Your task to perform on an android device: Open eBay Image 0: 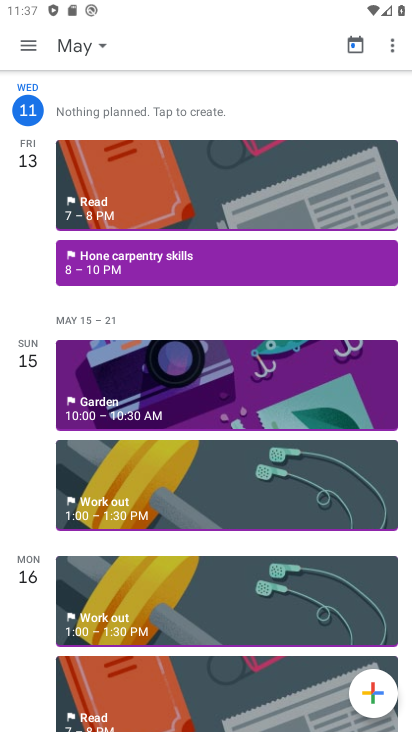
Step 0: press back button
Your task to perform on an android device: Open eBay Image 1: 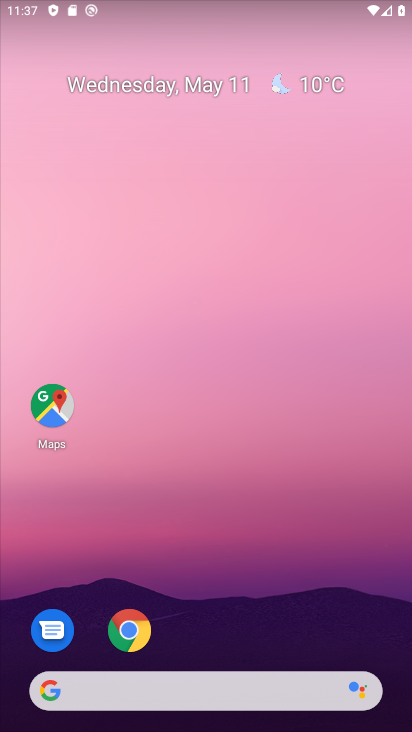
Step 1: click (117, 626)
Your task to perform on an android device: Open eBay Image 2: 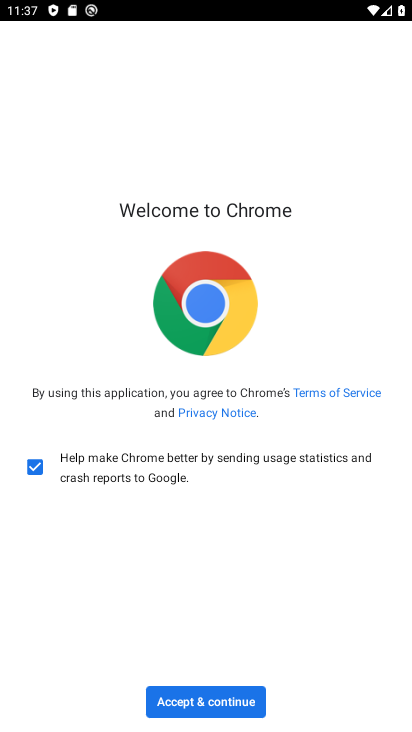
Step 2: click (215, 694)
Your task to perform on an android device: Open eBay Image 3: 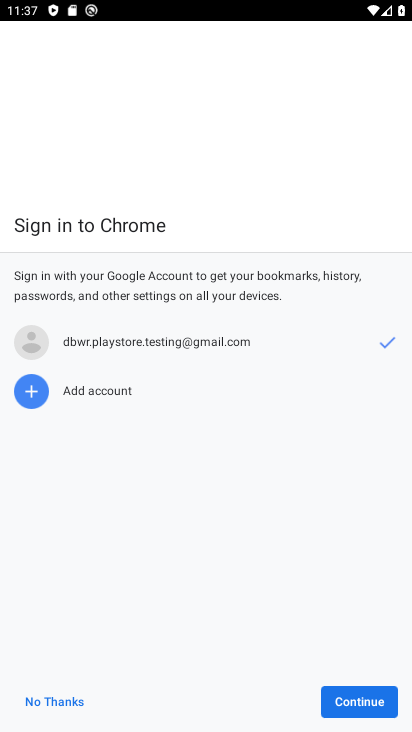
Step 3: click (375, 701)
Your task to perform on an android device: Open eBay Image 4: 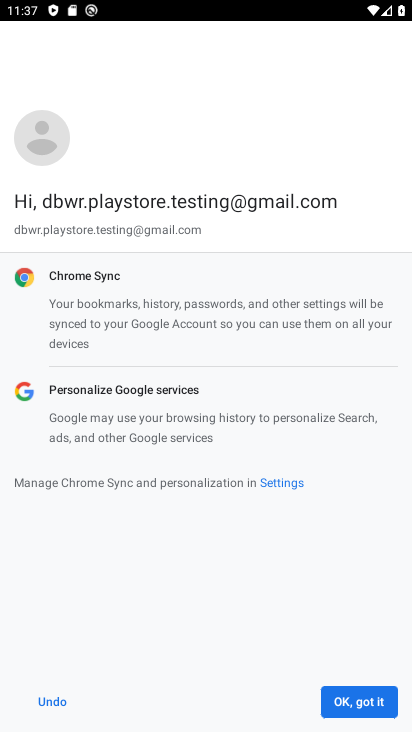
Step 4: click (376, 700)
Your task to perform on an android device: Open eBay Image 5: 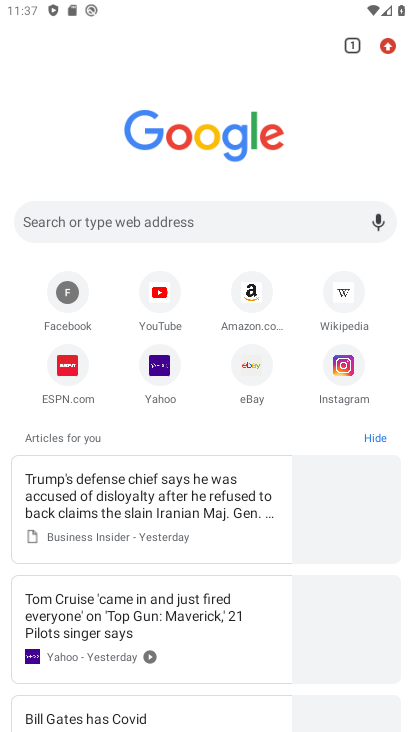
Step 5: click (252, 379)
Your task to perform on an android device: Open eBay Image 6: 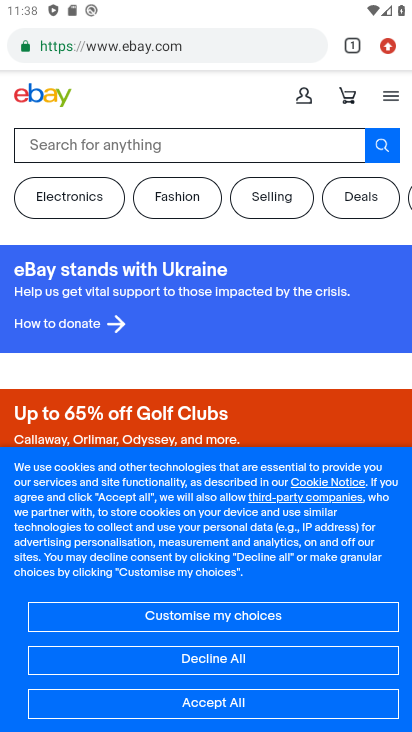
Step 6: click (220, 708)
Your task to perform on an android device: Open eBay Image 7: 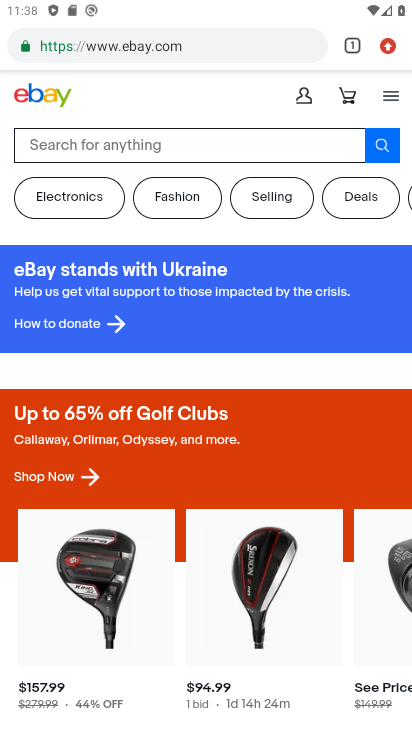
Step 7: task complete